Your task to perform on an android device: Go to Reddit.com Image 0: 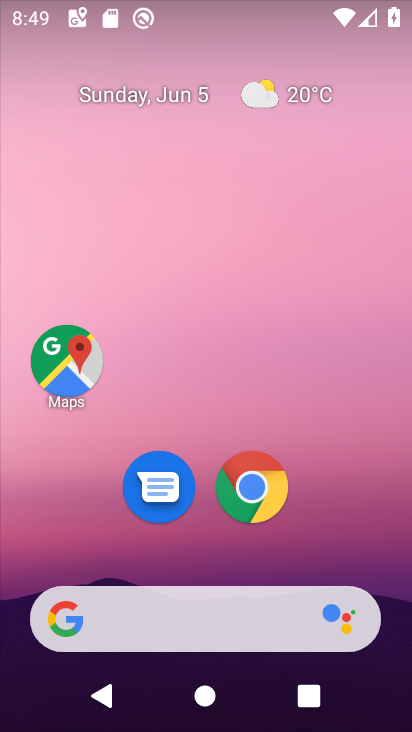
Step 0: click (273, 481)
Your task to perform on an android device: Go to Reddit.com Image 1: 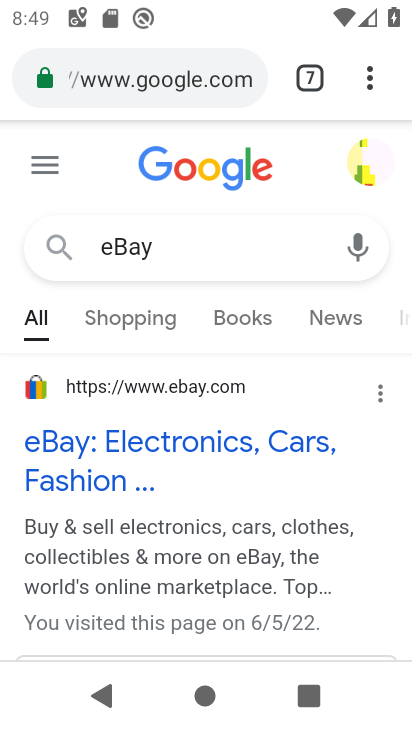
Step 1: click (310, 68)
Your task to perform on an android device: Go to Reddit.com Image 2: 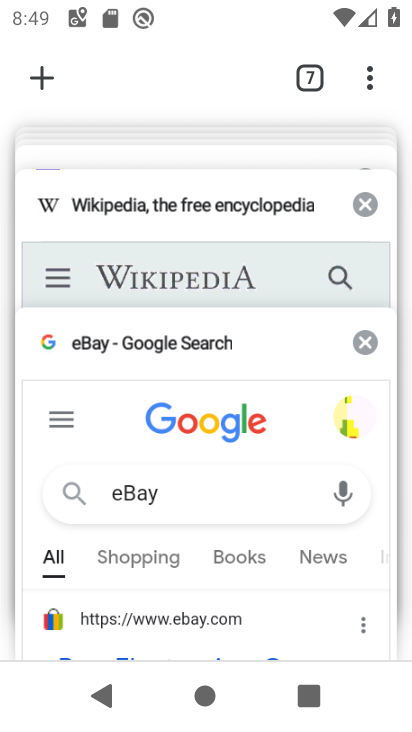
Step 2: drag from (170, 212) to (151, 561)
Your task to perform on an android device: Go to Reddit.com Image 3: 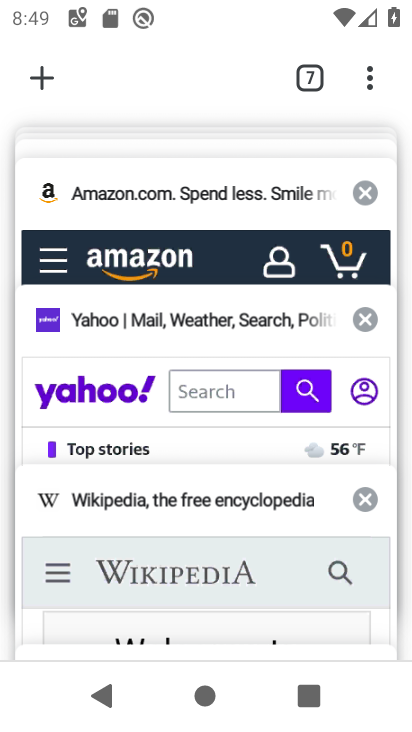
Step 3: drag from (146, 222) to (146, 625)
Your task to perform on an android device: Go to Reddit.com Image 4: 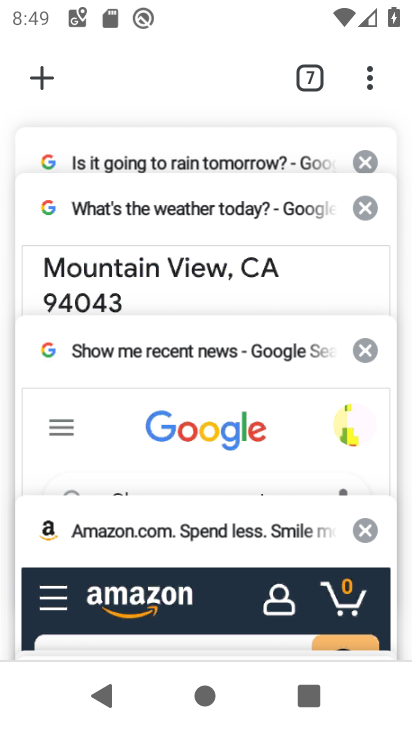
Step 4: drag from (137, 212) to (127, 564)
Your task to perform on an android device: Go to Reddit.com Image 5: 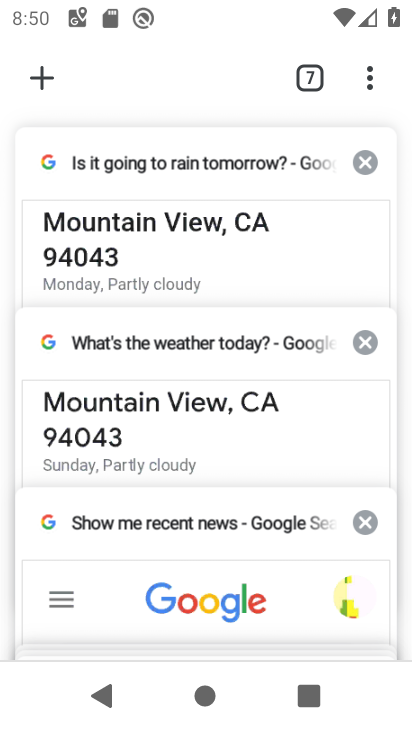
Step 5: drag from (118, 188) to (116, 469)
Your task to perform on an android device: Go to Reddit.com Image 6: 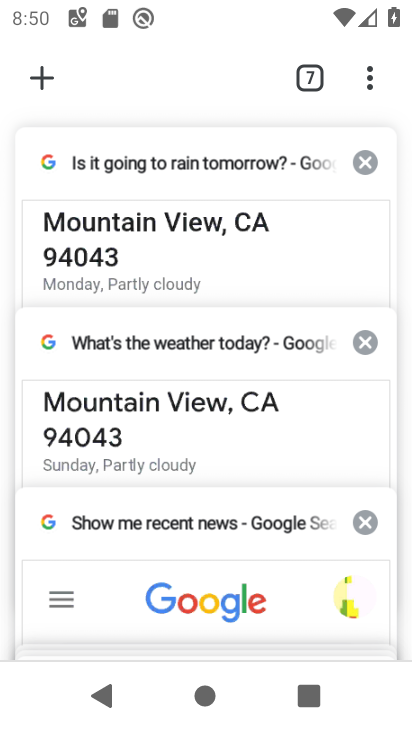
Step 6: click (29, 66)
Your task to perform on an android device: Go to Reddit.com Image 7: 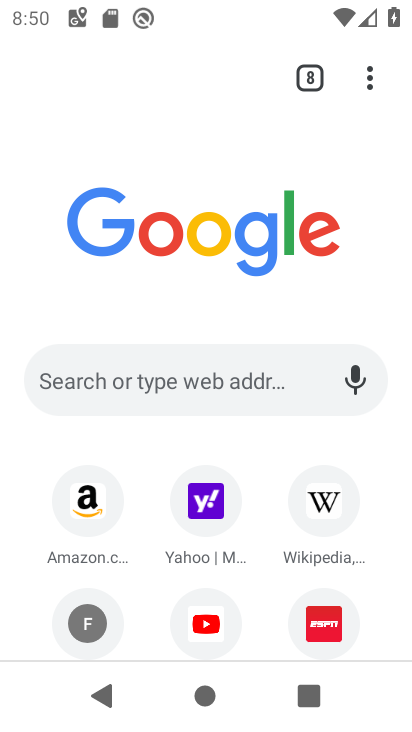
Step 7: click (221, 368)
Your task to perform on an android device: Go to Reddit.com Image 8: 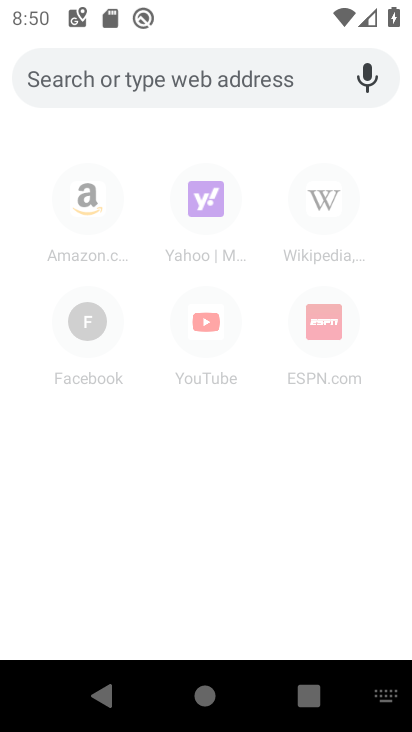
Step 8: type "Reddit.com"
Your task to perform on an android device: Go to Reddit.com Image 9: 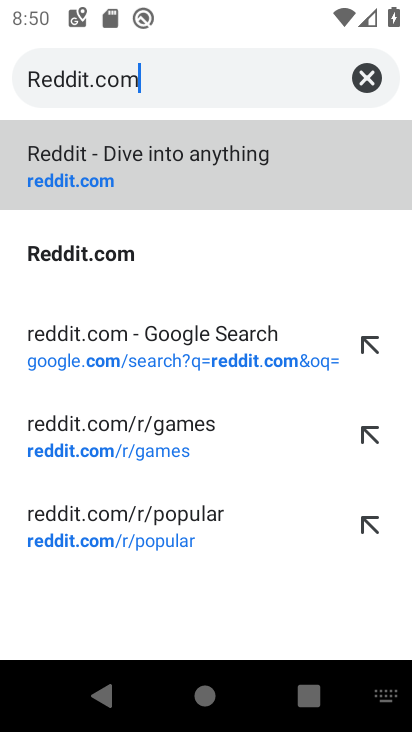
Step 9: click (164, 143)
Your task to perform on an android device: Go to Reddit.com Image 10: 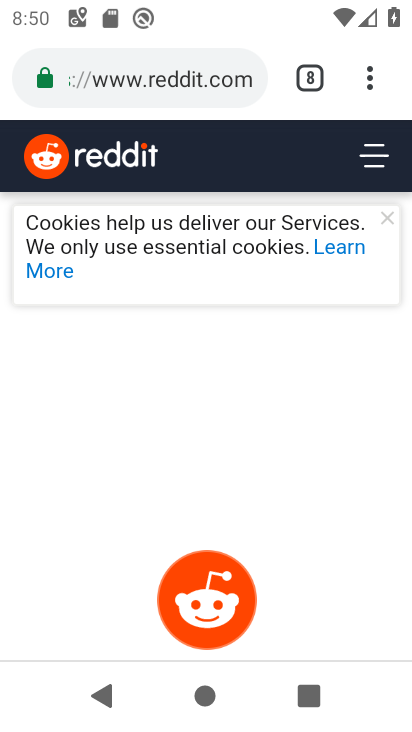
Step 10: task complete